Your task to perform on an android device: What's the weather going to be this weekend? Image 0: 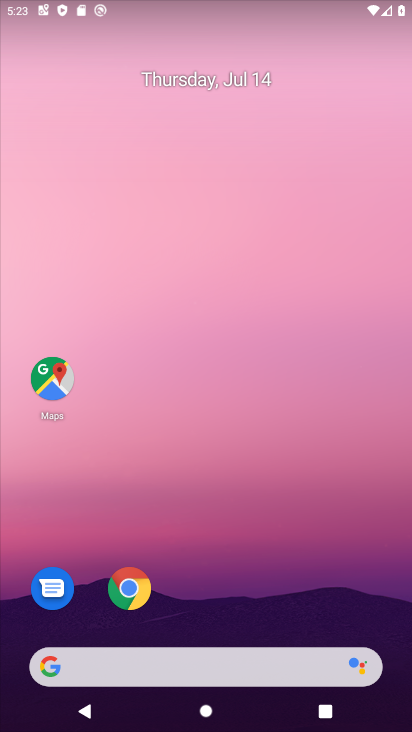
Step 0: drag from (144, 643) to (152, 320)
Your task to perform on an android device: What's the weather going to be this weekend? Image 1: 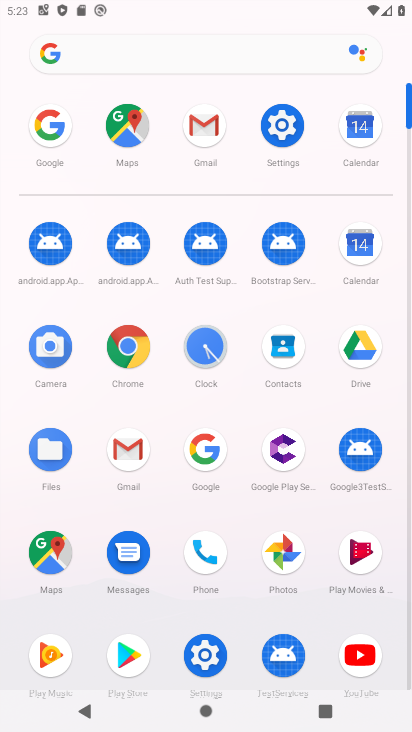
Step 1: click (206, 449)
Your task to perform on an android device: What's the weather going to be this weekend? Image 2: 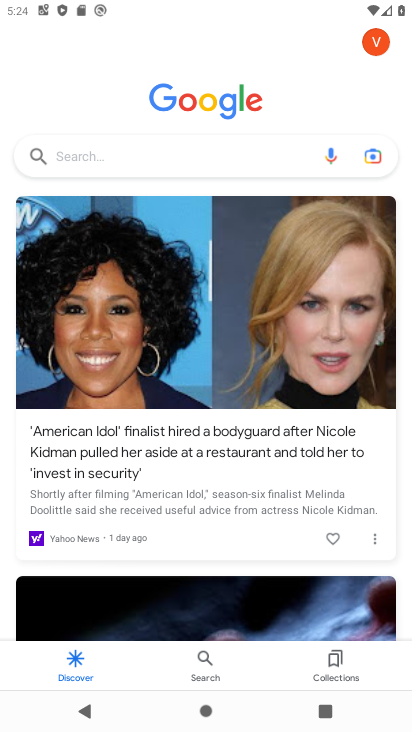
Step 2: click (137, 151)
Your task to perform on an android device: What's the weather going to be this weekend? Image 3: 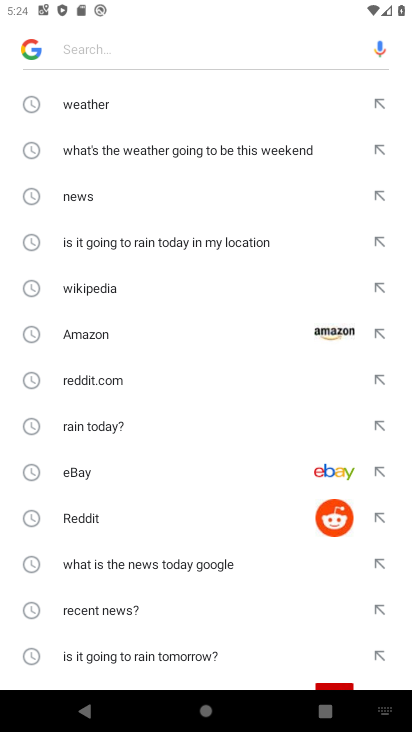
Step 3: click (125, 147)
Your task to perform on an android device: What's the weather going to be this weekend? Image 4: 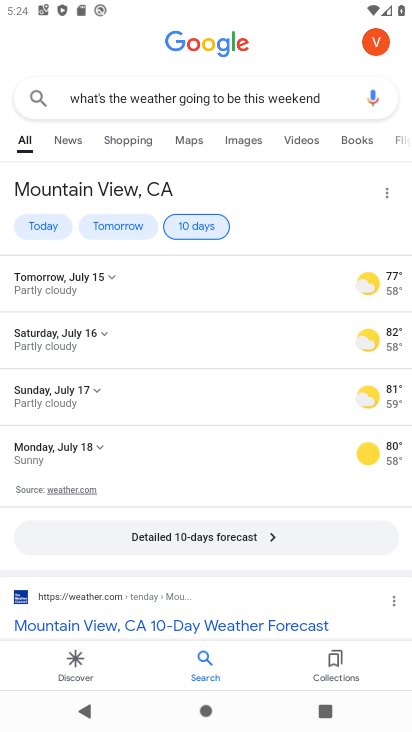
Step 4: task complete